Your task to perform on an android device: What's on my calendar tomorrow? Image 0: 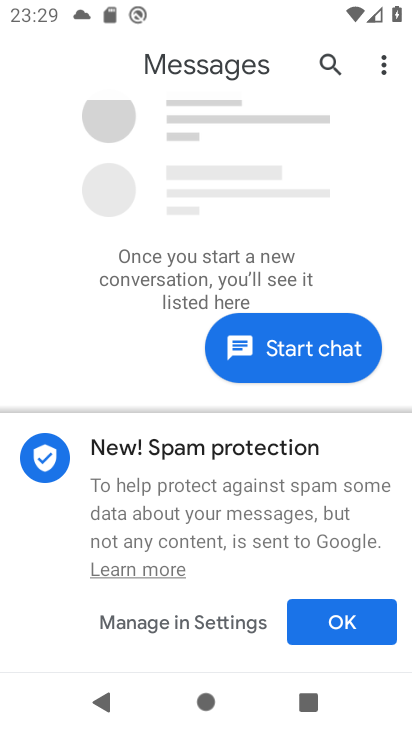
Step 0: drag from (347, 572) to (339, 308)
Your task to perform on an android device: What's on my calendar tomorrow? Image 1: 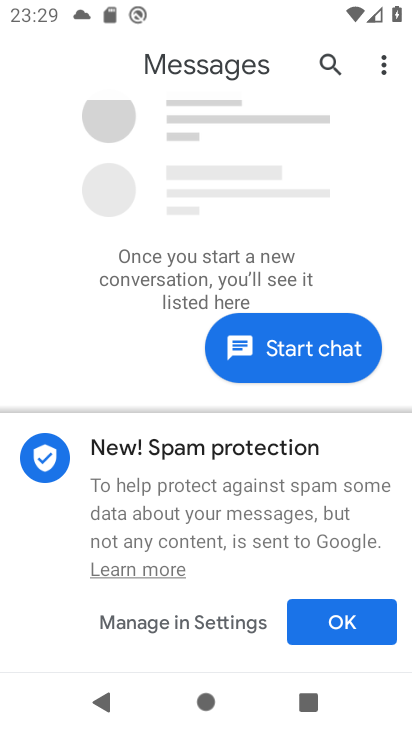
Step 1: press home button
Your task to perform on an android device: What's on my calendar tomorrow? Image 2: 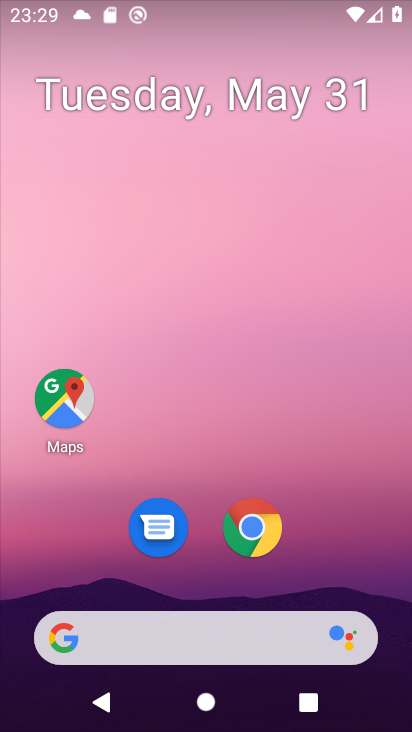
Step 2: drag from (355, 561) to (111, 28)
Your task to perform on an android device: What's on my calendar tomorrow? Image 3: 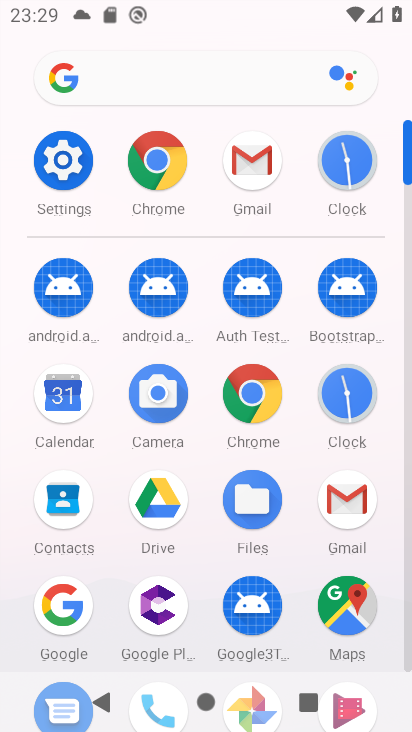
Step 3: click (52, 395)
Your task to perform on an android device: What's on my calendar tomorrow? Image 4: 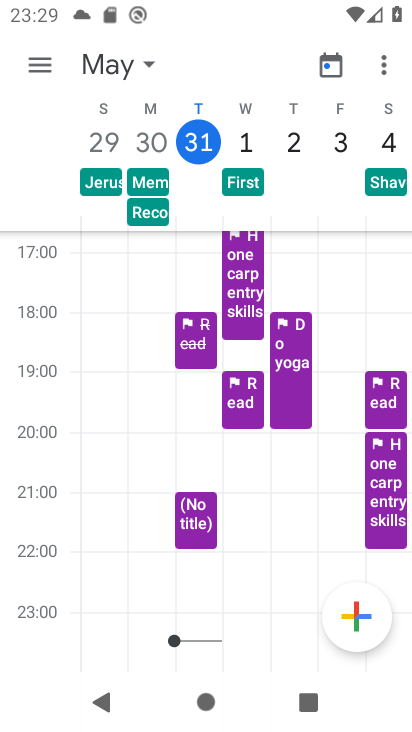
Step 4: task complete